Your task to perform on an android device: Search for Italian restaurants on Maps Image 0: 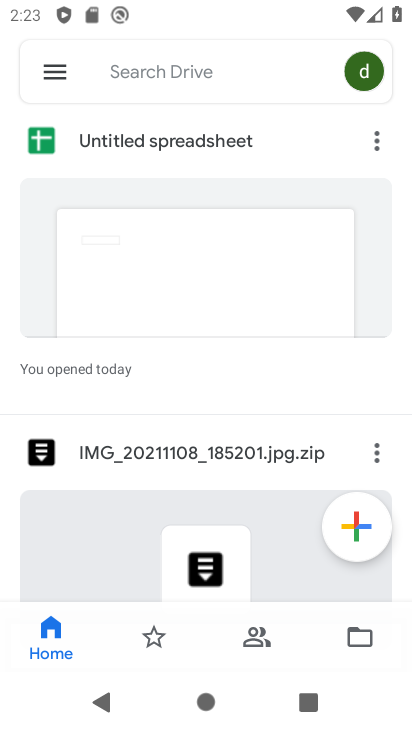
Step 0: press home button
Your task to perform on an android device: Search for Italian restaurants on Maps Image 1: 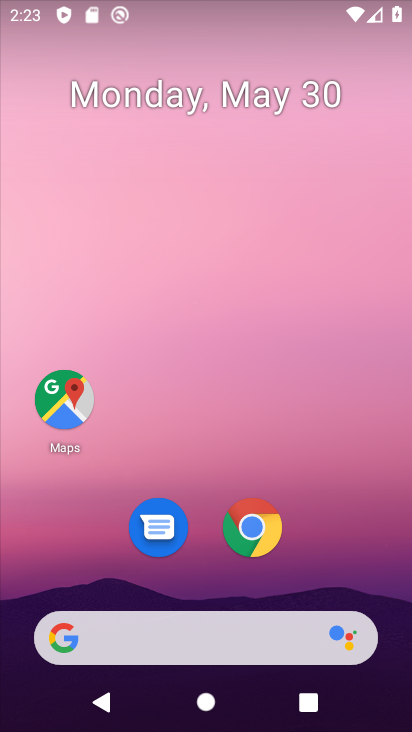
Step 1: click (58, 402)
Your task to perform on an android device: Search for Italian restaurants on Maps Image 2: 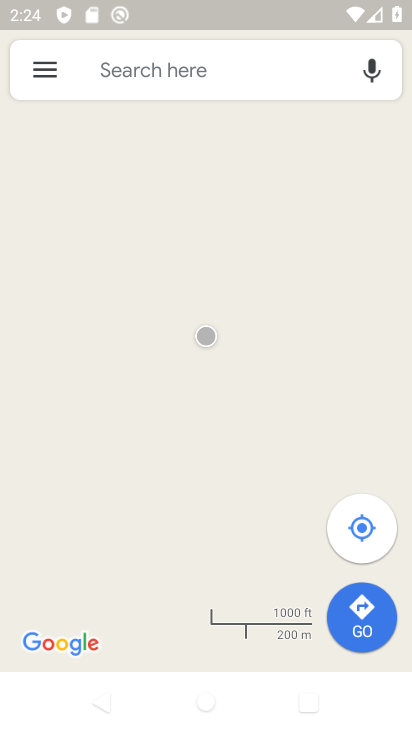
Step 2: click (254, 64)
Your task to perform on an android device: Search for Italian restaurants on Maps Image 3: 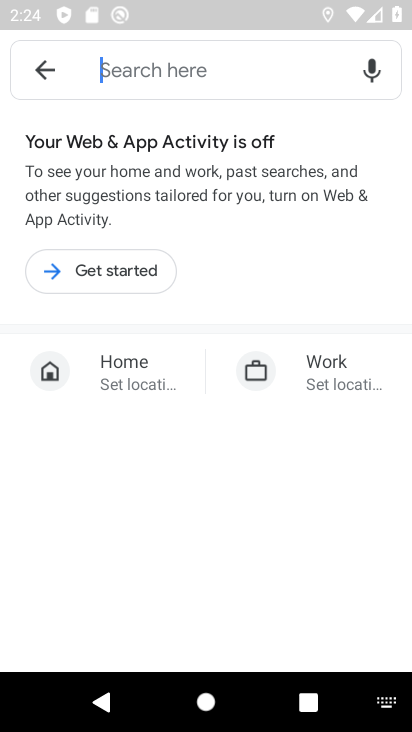
Step 3: type " Italian restaurants"
Your task to perform on an android device: Search for Italian restaurants on Maps Image 4: 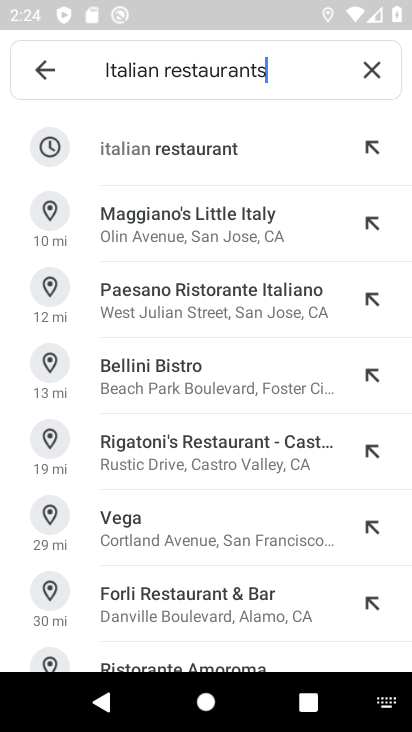
Step 4: click (200, 150)
Your task to perform on an android device: Search for Italian restaurants on Maps Image 5: 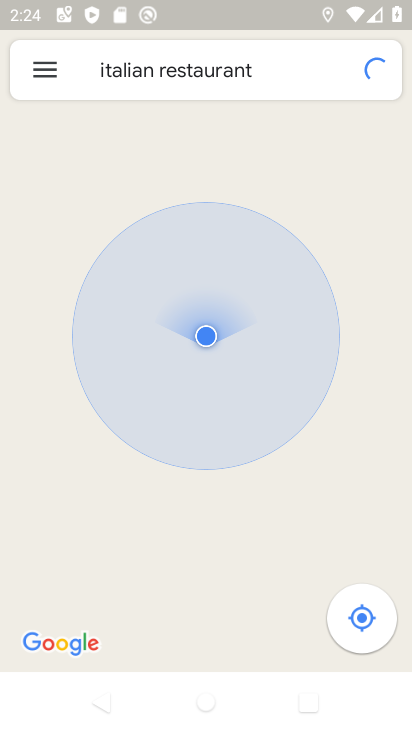
Step 5: click (215, 147)
Your task to perform on an android device: Search for Italian restaurants on Maps Image 6: 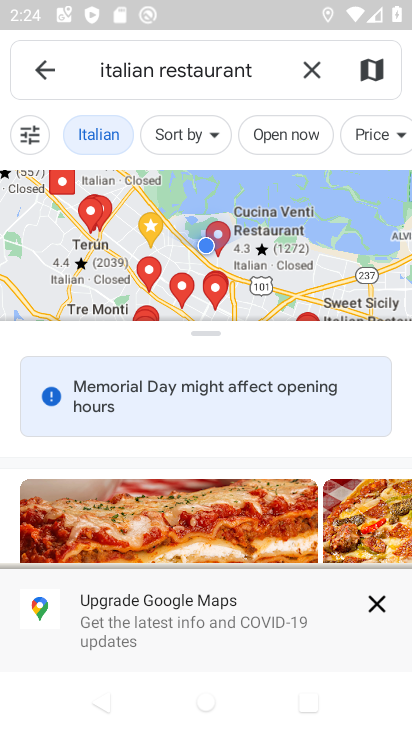
Step 6: task complete